Your task to perform on an android device: Open the calendar app, open the side menu, and click the "Day" option Image 0: 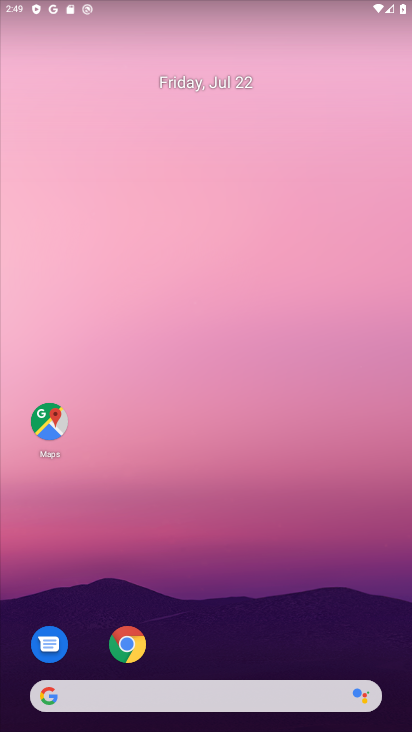
Step 0: drag from (288, 495) to (238, 157)
Your task to perform on an android device: Open the calendar app, open the side menu, and click the "Day" option Image 1: 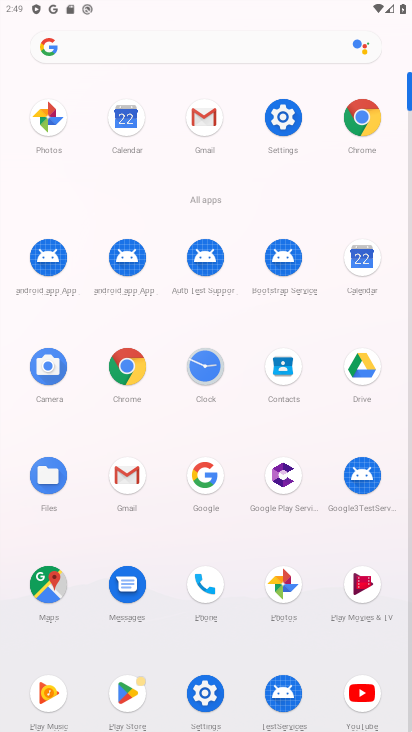
Step 1: click (362, 259)
Your task to perform on an android device: Open the calendar app, open the side menu, and click the "Day" option Image 2: 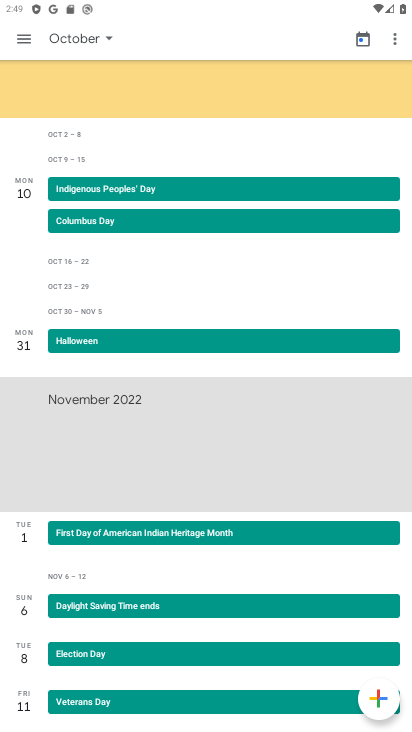
Step 2: click (18, 30)
Your task to perform on an android device: Open the calendar app, open the side menu, and click the "Day" option Image 3: 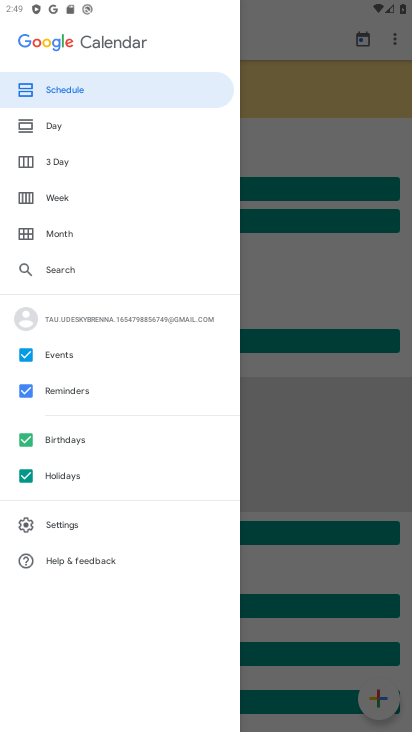
Step 3: click (68, 130)
Your task to perform on an android device: Open the calendar app, open the side menu, and click the "Day" option Image 4: 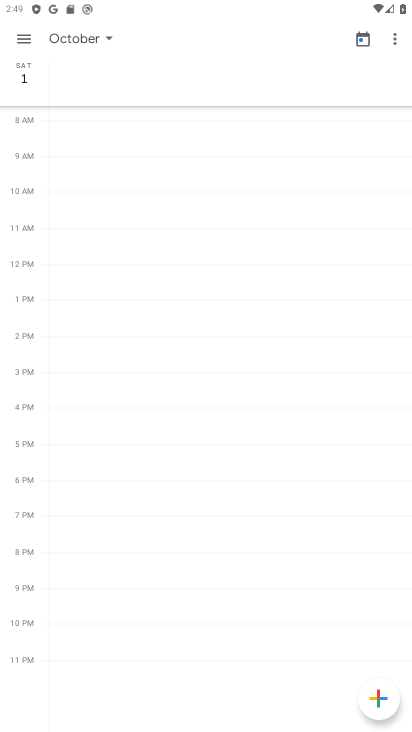
Step 4: task complete